Your task to perform on an android device: manage bookmarks in the chrome app Image 0: 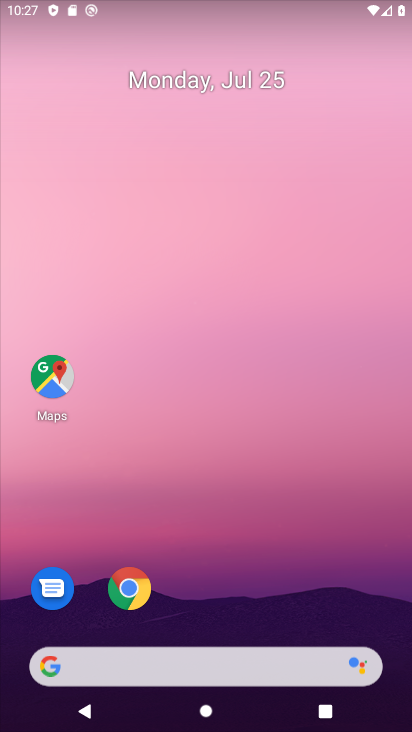
Step 0: drag from (255, 556) to (208, 90)
Your task to perform on an android device: manage bookmarks in the chrome app Image 1: 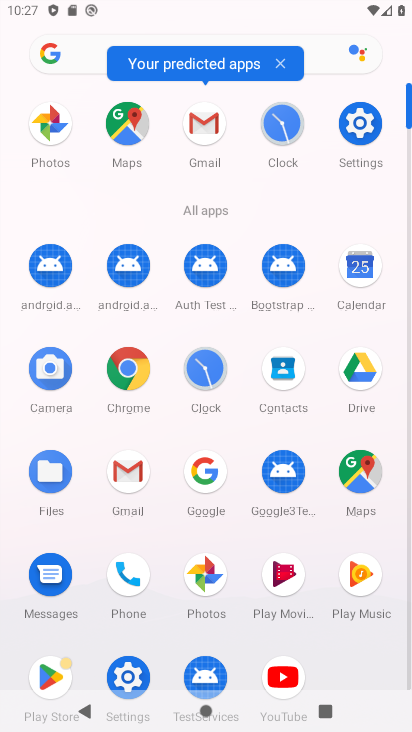
Step 1: click (149, 356)
Your task to perform on an android device: manage bookmarks in the chrome app Image 2: 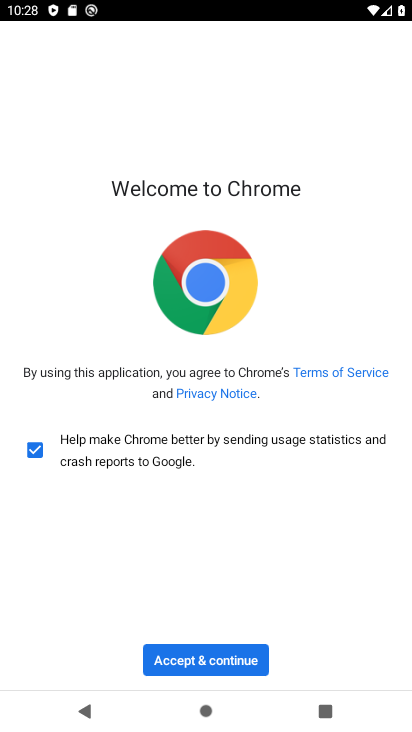
Step 2: click (196, 657)
Your task to perform on an android device: manage bookmarks in the chrome app Image 3: 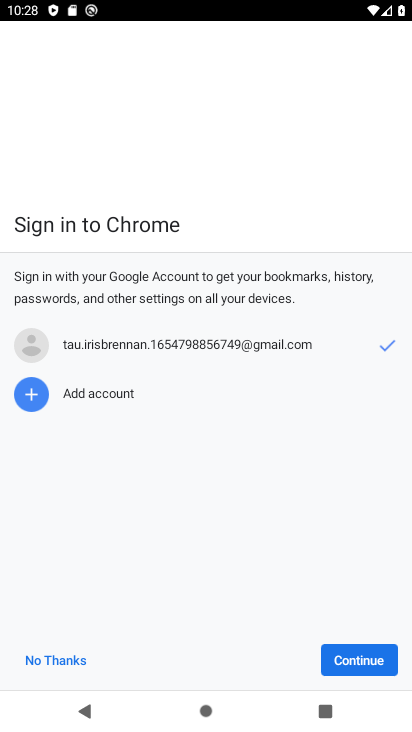
Step 3: click (375, 653)
Your task to perform on an android device: manage bookmarks in the chrome app Image 4: 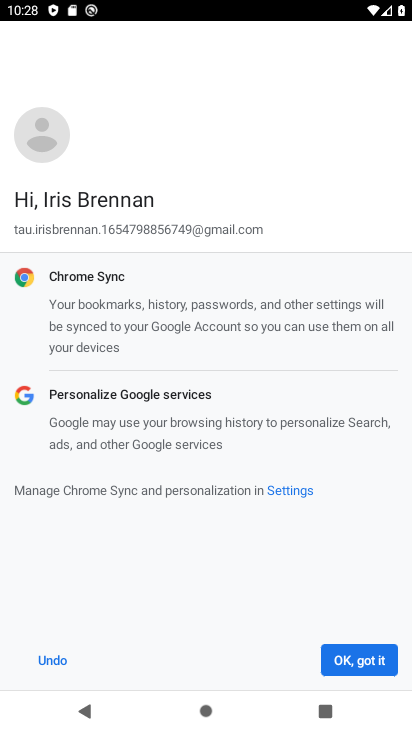
Step 4: click (375, 653)
Your task to perform on an android device: manage bookmarks in the chrome app Image 5: 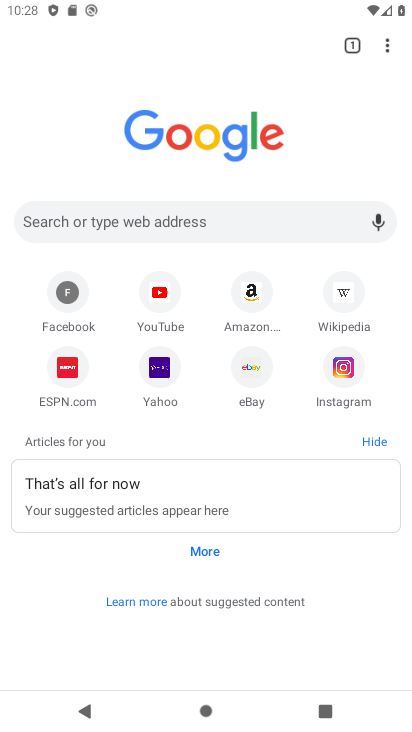
Step 5: click (391, 53)
Your task to perform on an android device: manage bookmarks in the chrome app Image 6: 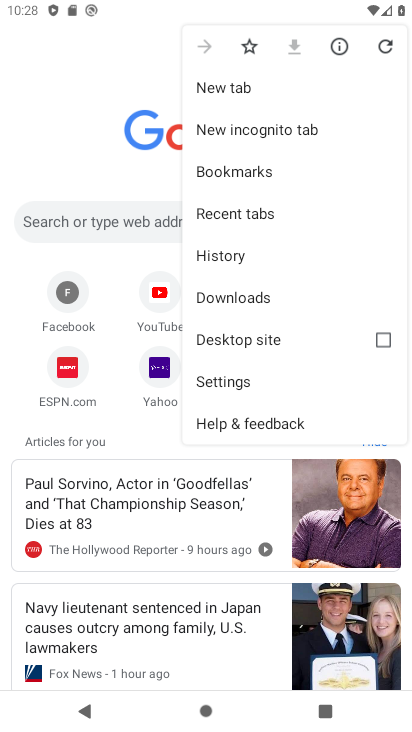
Step 6: click (208, 166)
Your task to perform on an android device: manage bookmarks in the chrome app Image 7: 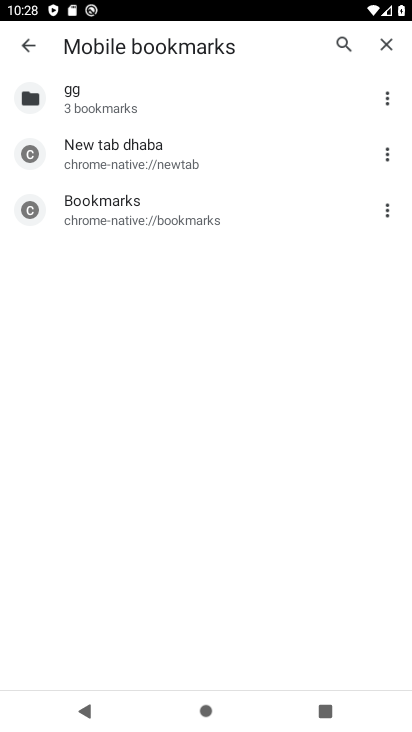
Step 7: click (200, 220)
Your task to perform on an android device: manage bookmarks in the chrome app Image 8: 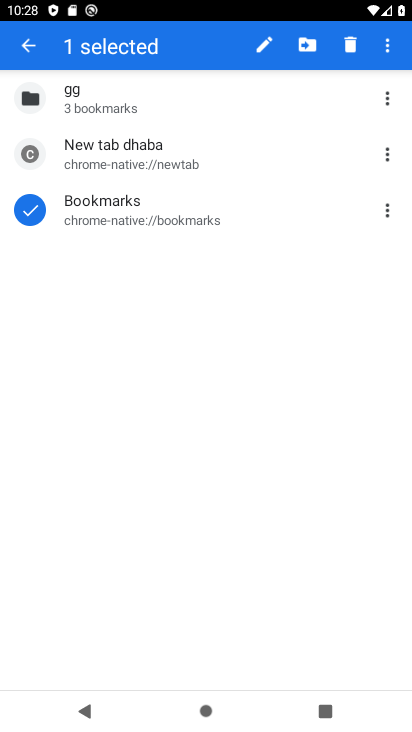
Step 8: click (143, 181)
Your task to perform on an android device: manage bookmarks in the chrome app Image 9: 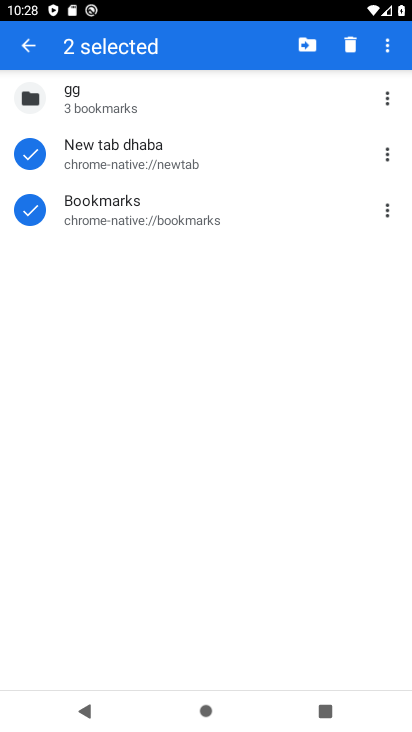
Step 9: click (309, 45)
Your task to perform on an android device: manage bookmarks in the chrome app Image 10: 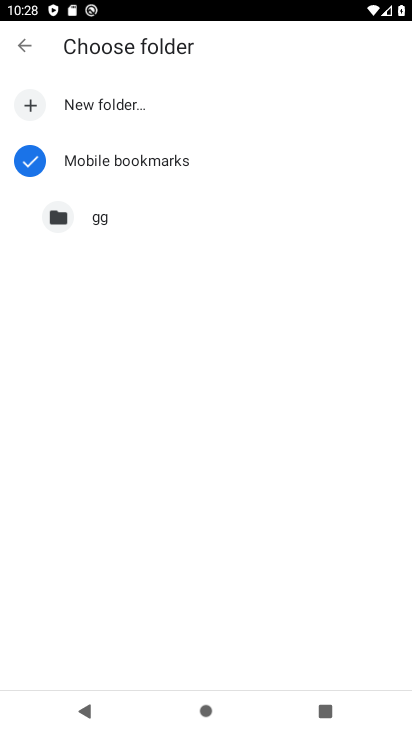
Step 10: click (105, 216)
Your task to perform on an android device: manage bookmarks in the chrome app Image 11: 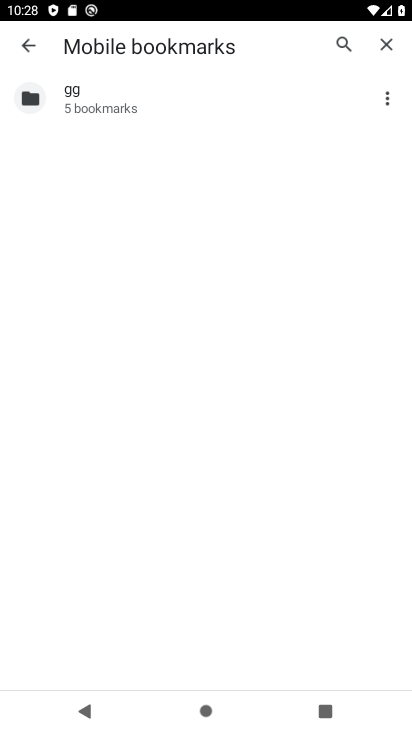
Step 11: task complete